Your task to perform on an android device: Open Chrome and go to settings Image 0: 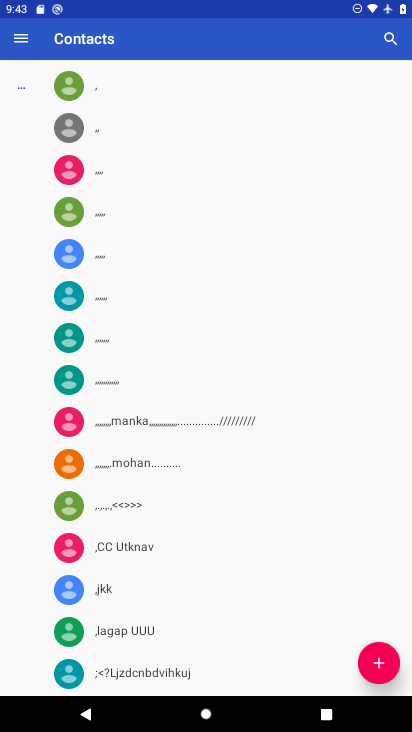
Step 0: press home button
Your task to perform on an android device: Open Chrome and go to settings Image 1: 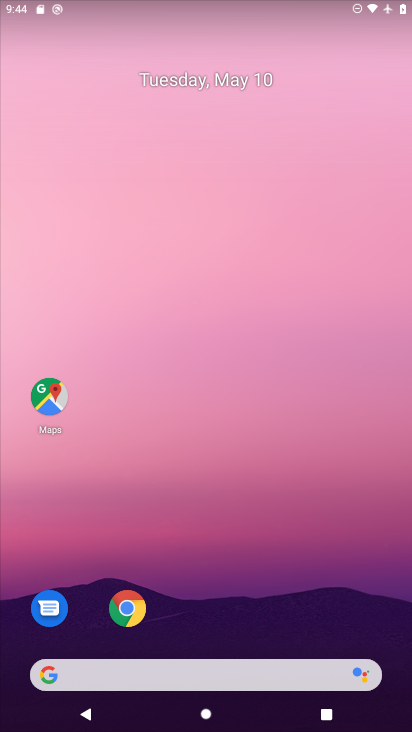
Step 1: drag from (217, 627) to (207, 287)
Your task to perform on an android device: Open Chrome and go to settings Image 2: 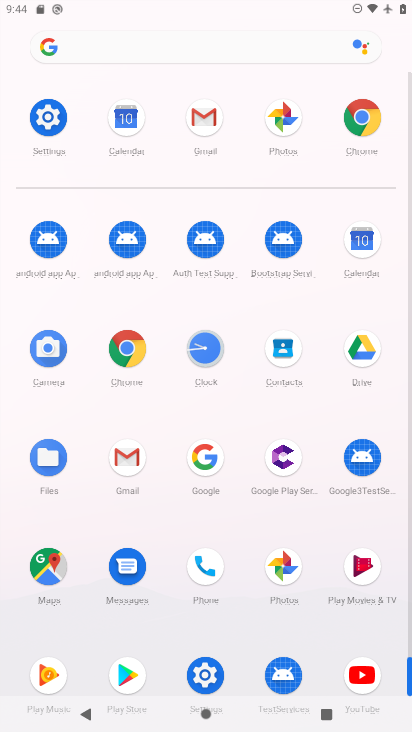
Step 2: click (126, 348)
Your task to perform on an android device: Open Chrome and go to settings Image 3: 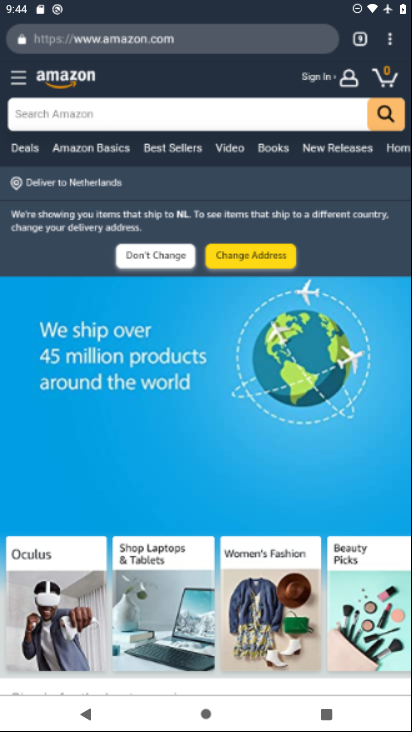
Step 3: click (381, 38)
Your task to perform on an android device: Open Chrome and go to settings Image 4: 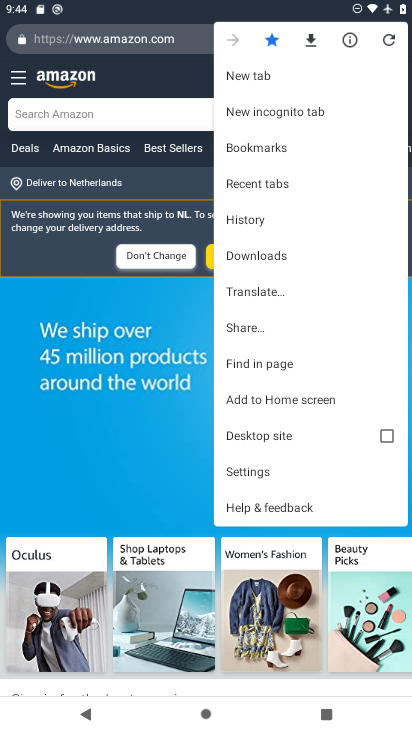
Step 4: click (261, 463)
Your task to perform on an android device: Open Chrome and go to settings Image 5: 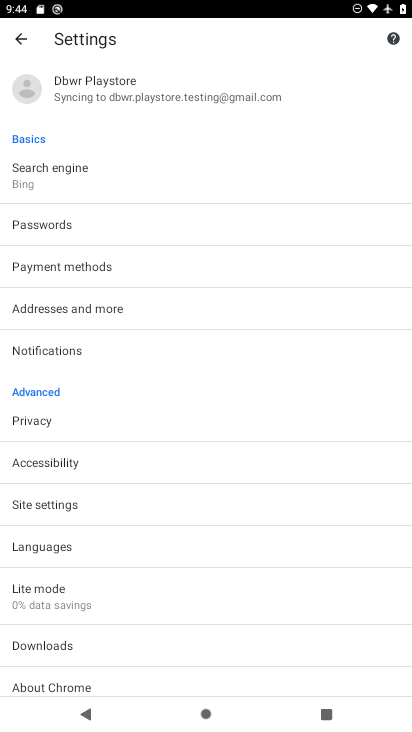
Step 5: task complete